Your task to perform on an android device: turn on data saver in the chrome app Image 0: 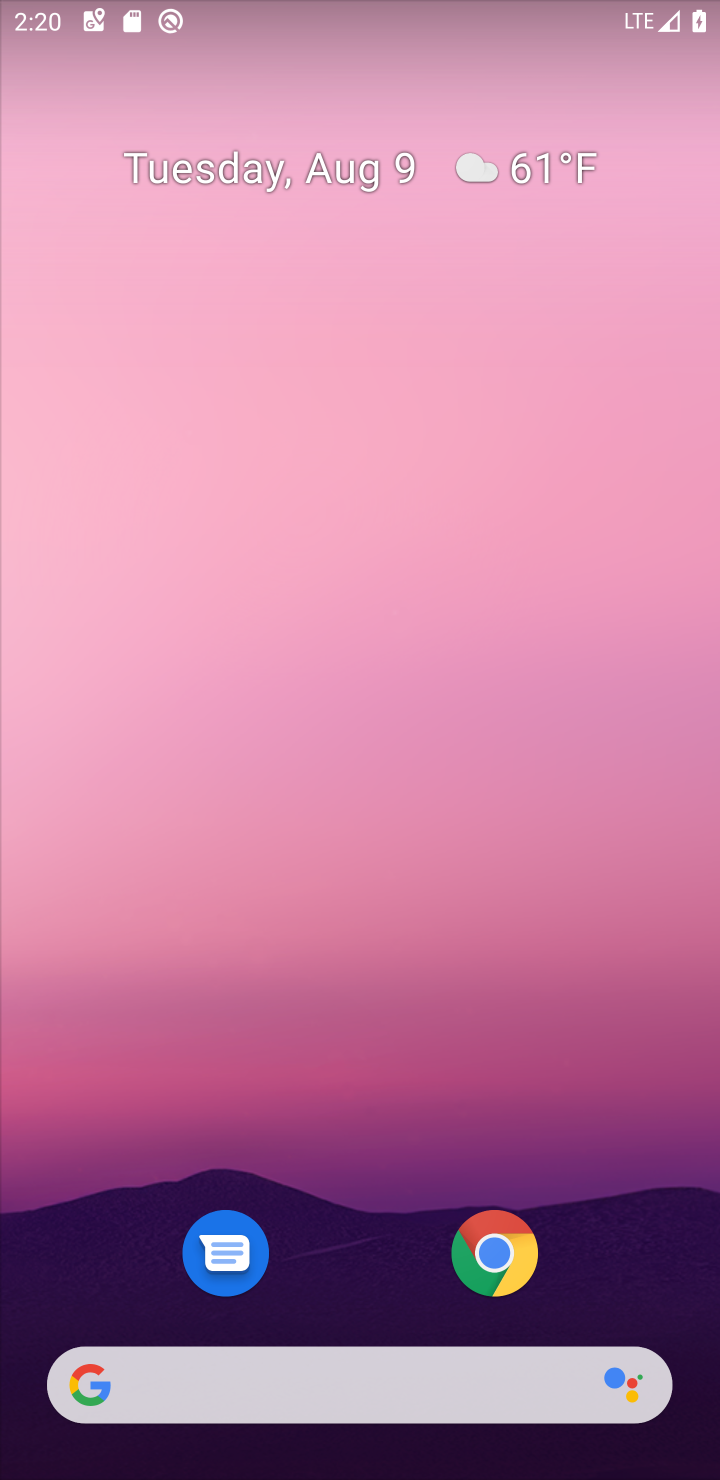
Step 0: drag from (638, 1281) to (270, 43)
Your task to perform on an android device: turn on data saver in the chrome app Image 1: 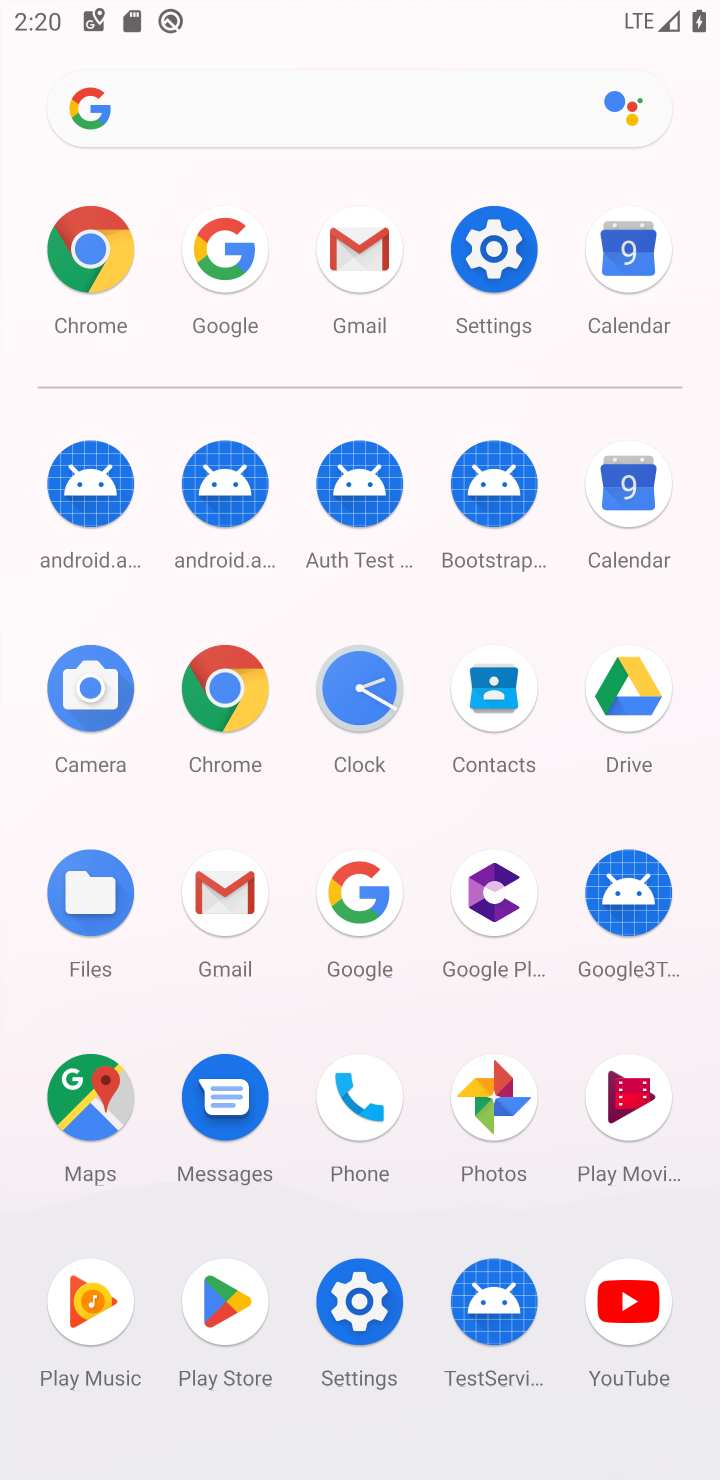
Step 1: click (84, 271)
Your task to perform on an android device: turn on data saver in the chrome app Image 2: 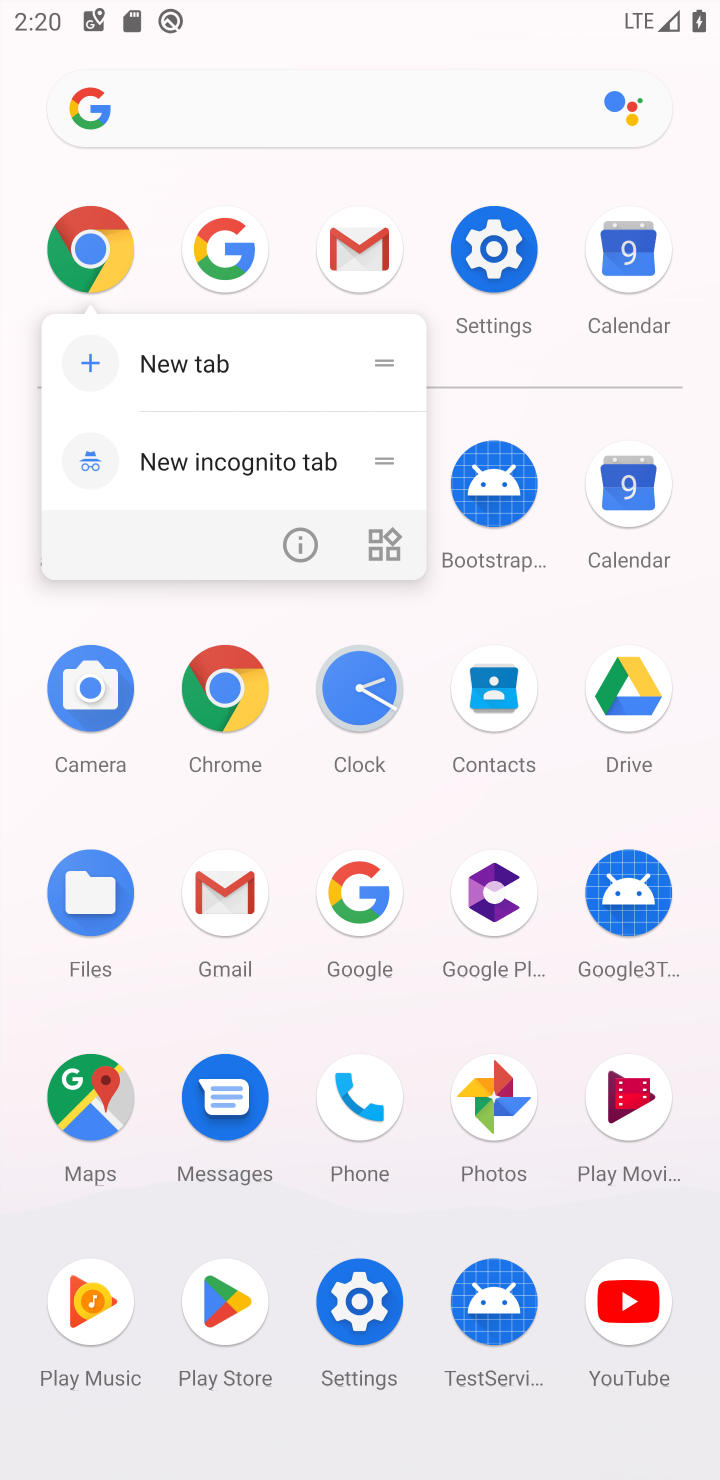
Step 2: click (84, 271)
Your task to perform on an android device: turn on data saver in the chrome app Image 3: 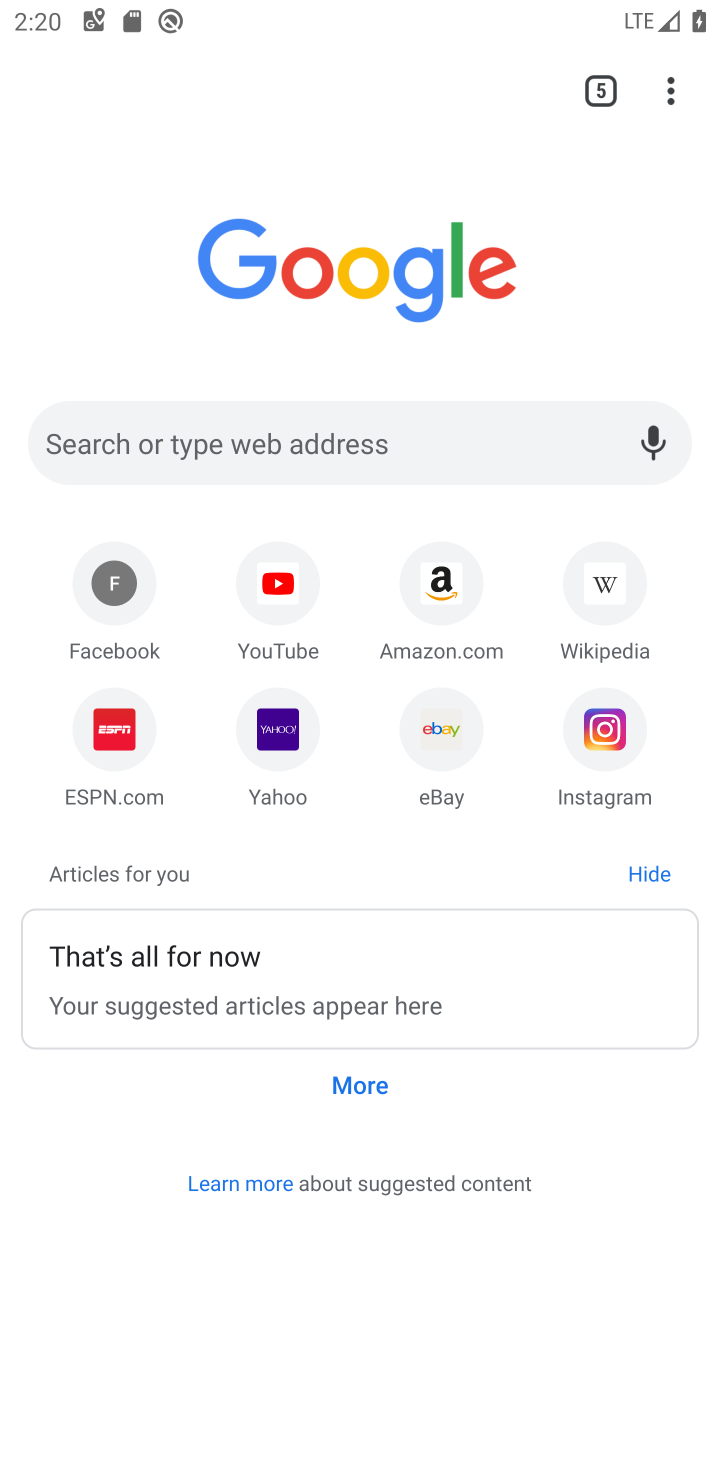
Step 3: click (666, 82)
Your task to perform on an android device: turn on data saver in the chrome app Image 4: 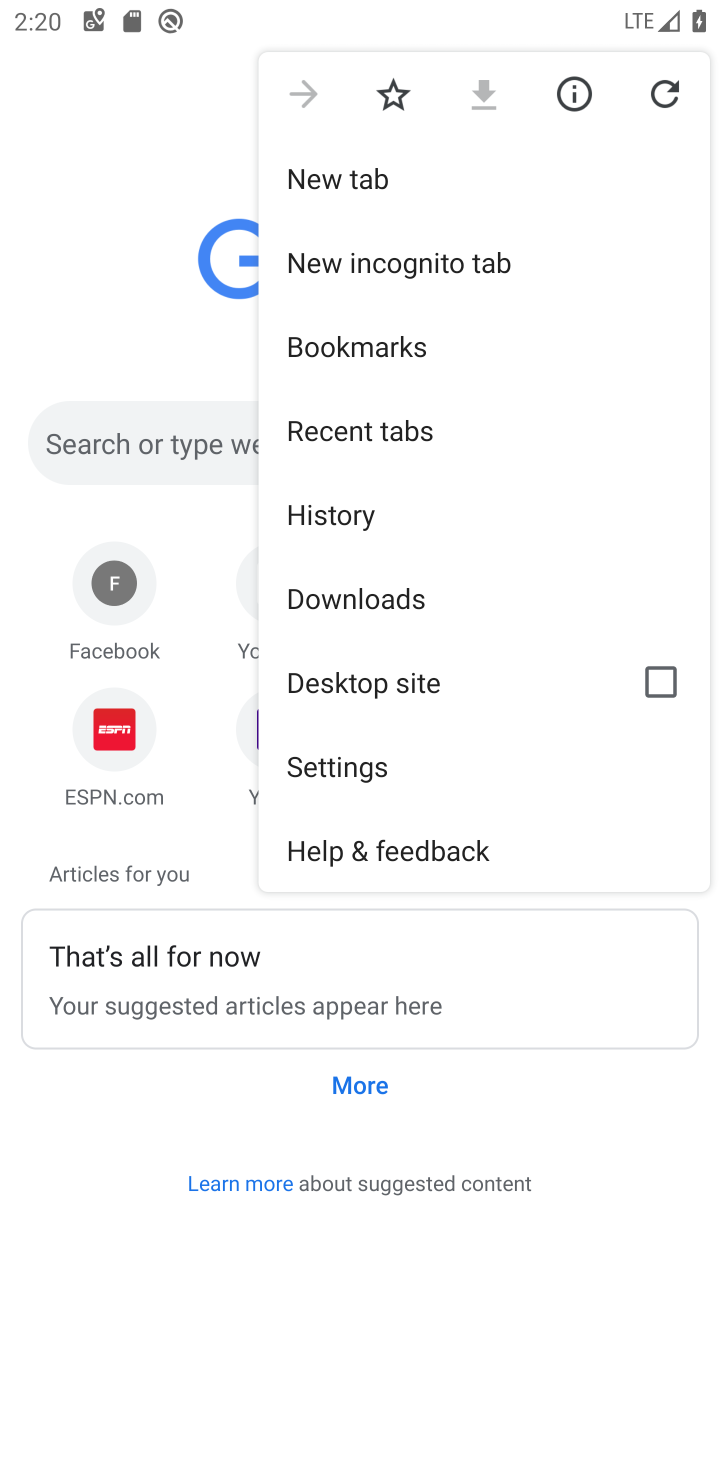
Step 4: click (348, 771)
Your task to perform on an android device: turn on data saver in the chrome app Image 5: 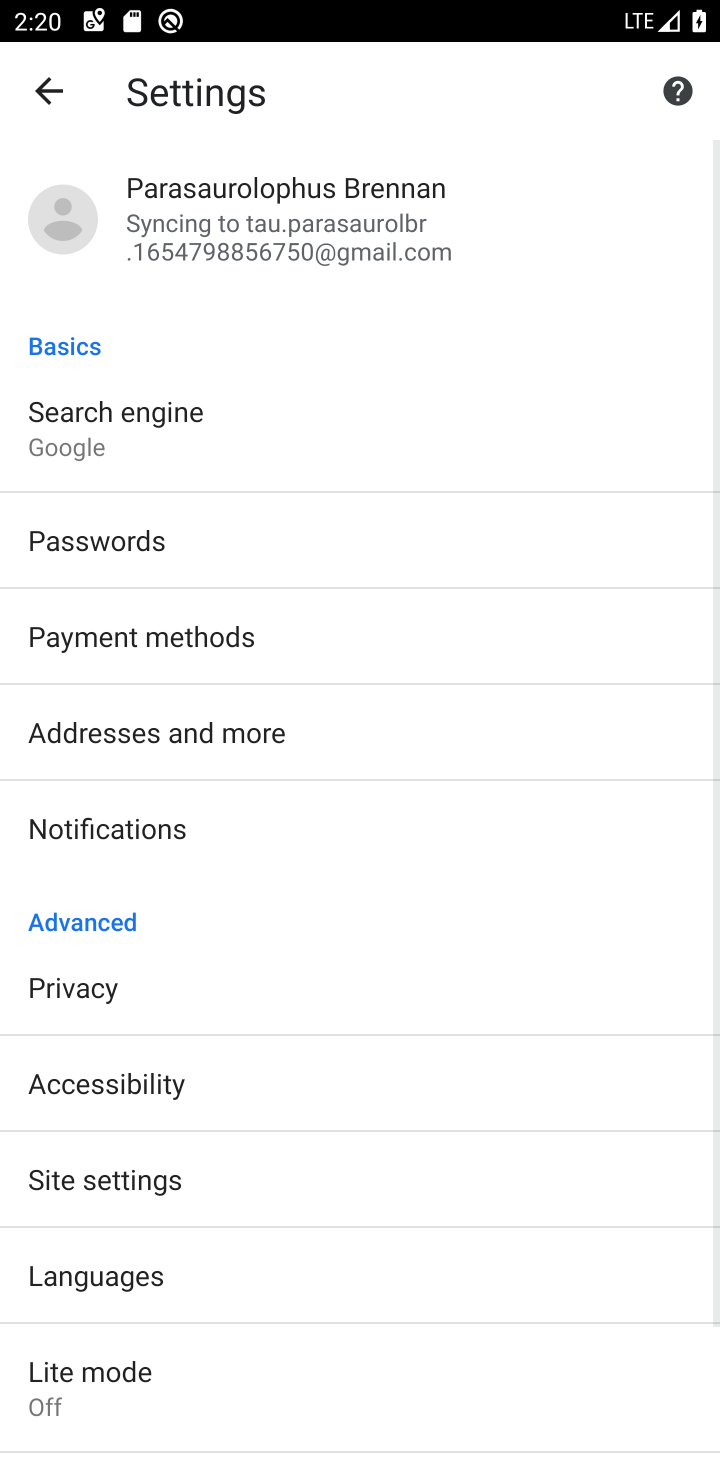
Step 5: click (179, 1389)
Your task to perform on an android device: turn on data saver in the chrome app Image 6: 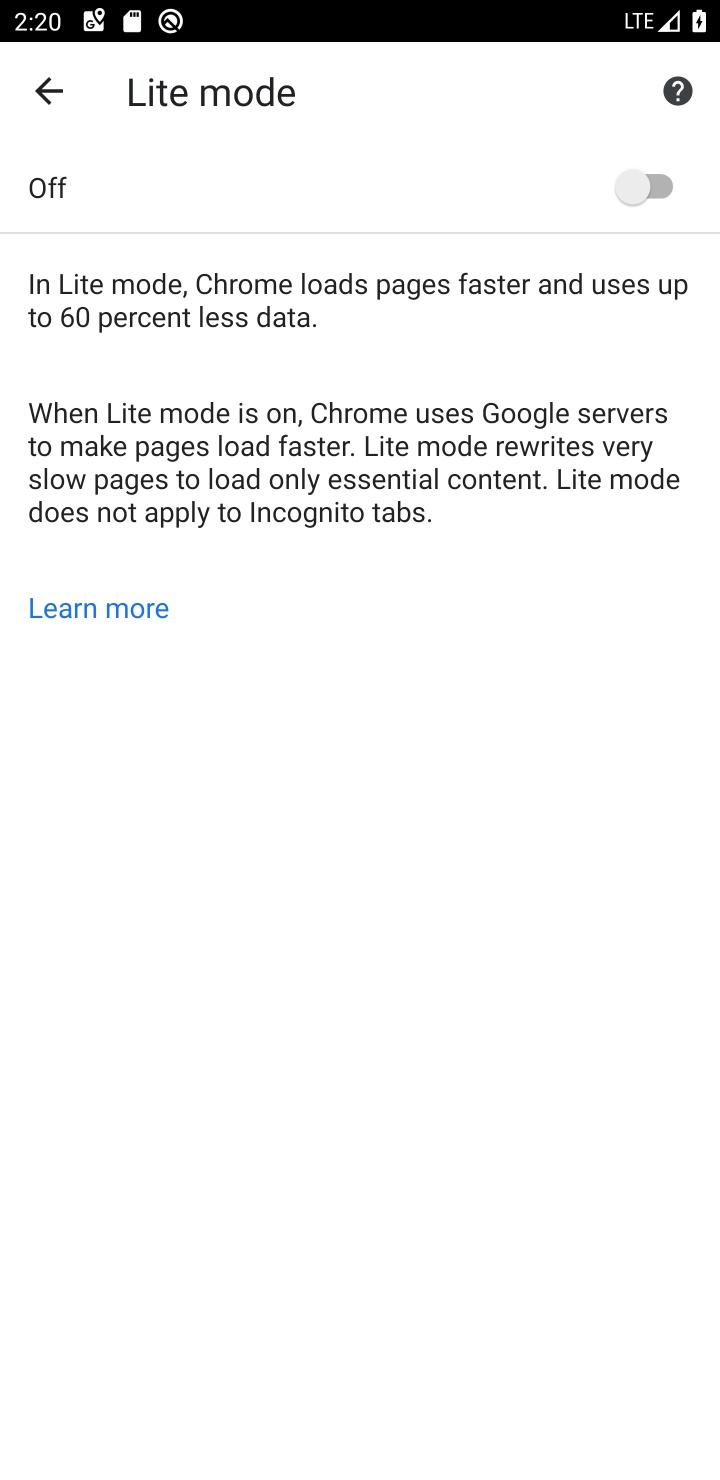
Step 6: click (620, 212)
Your task to perform on an android device: turn on data saver in the chrome app Image 7: 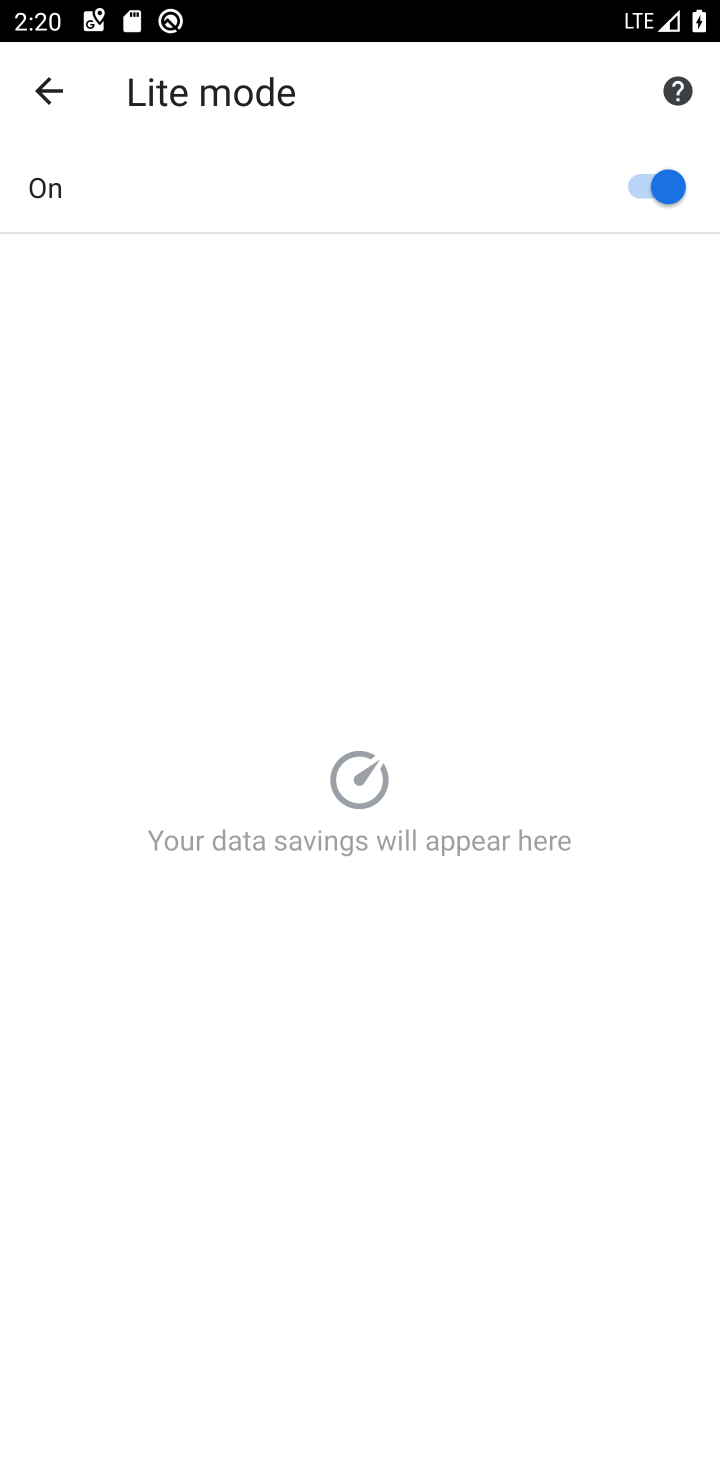
Step 7: task complete